Your task to perform on an android device: Open Youtube and go to "Your channel" Image 0: 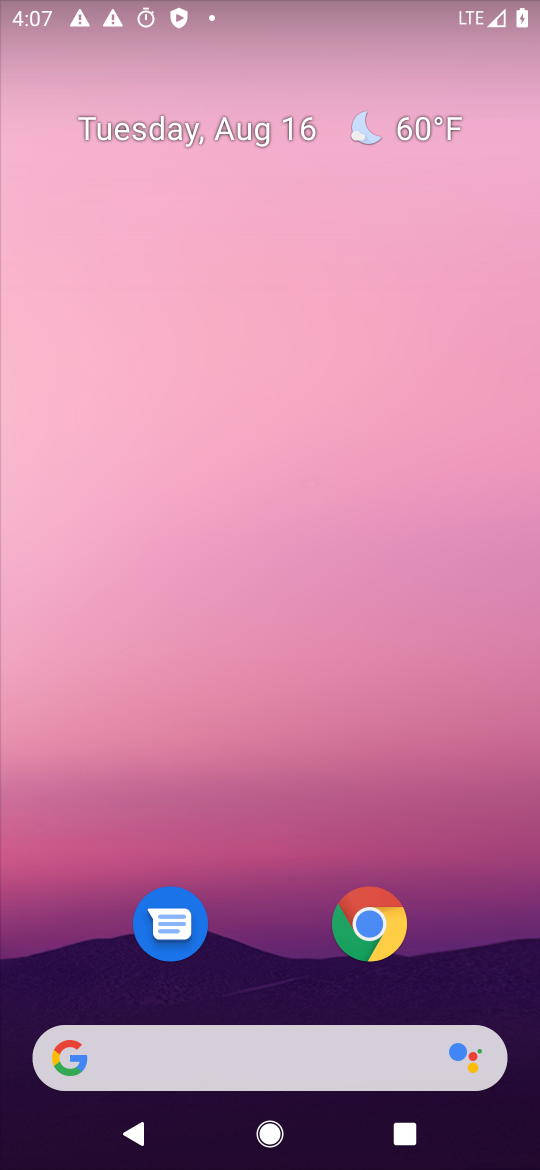
Step 0: drag from (262, 953) to (218, 81)
Your task to perform on an android device: Open Youtube and go to "Your channel" Image 1: 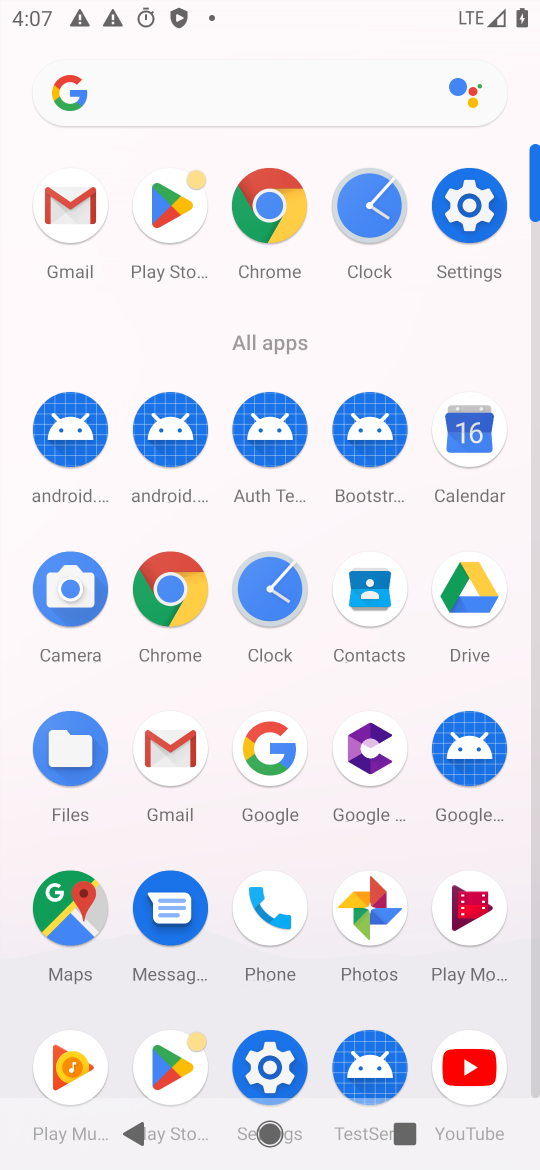
Step 1: click (484, 1064)
Your task to perform on an android device: Open Youtube and go to "Your channel" Image 2: 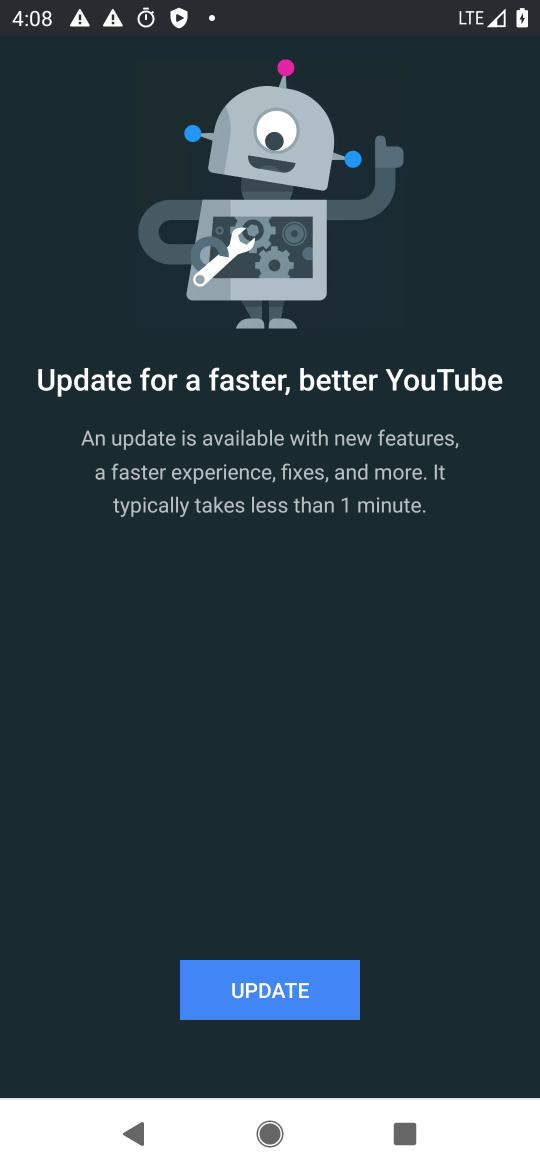
Step 2: click (326, 1008)
Your task to perform on an android device: Open Youtube and go to "Your channel" Image 3: 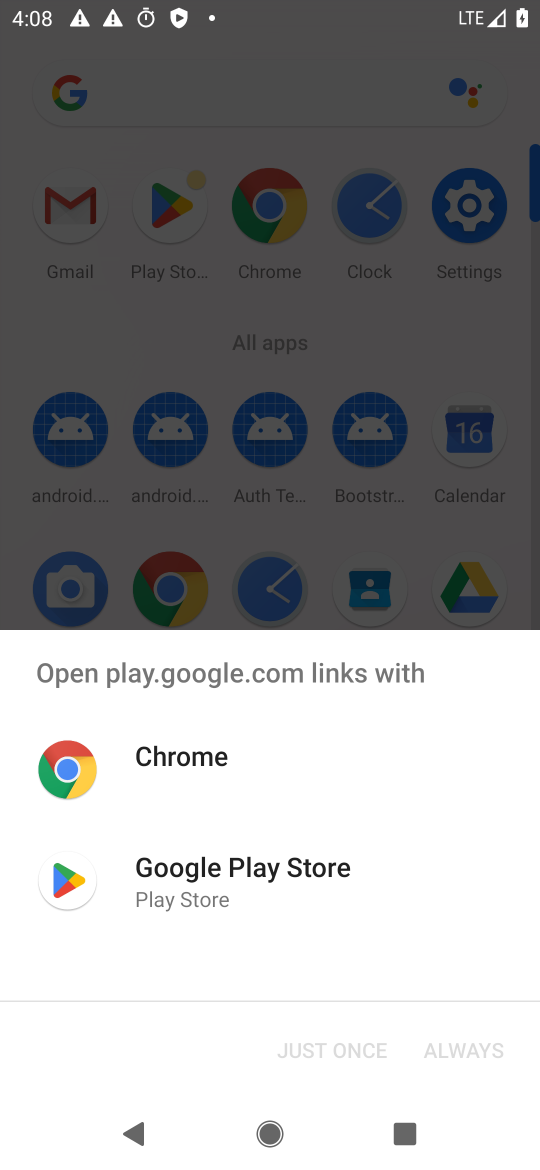
Step 3: click (258, 881)
Your task to perform on an android device: Open Youtube and go to "Your channel" Image 4: 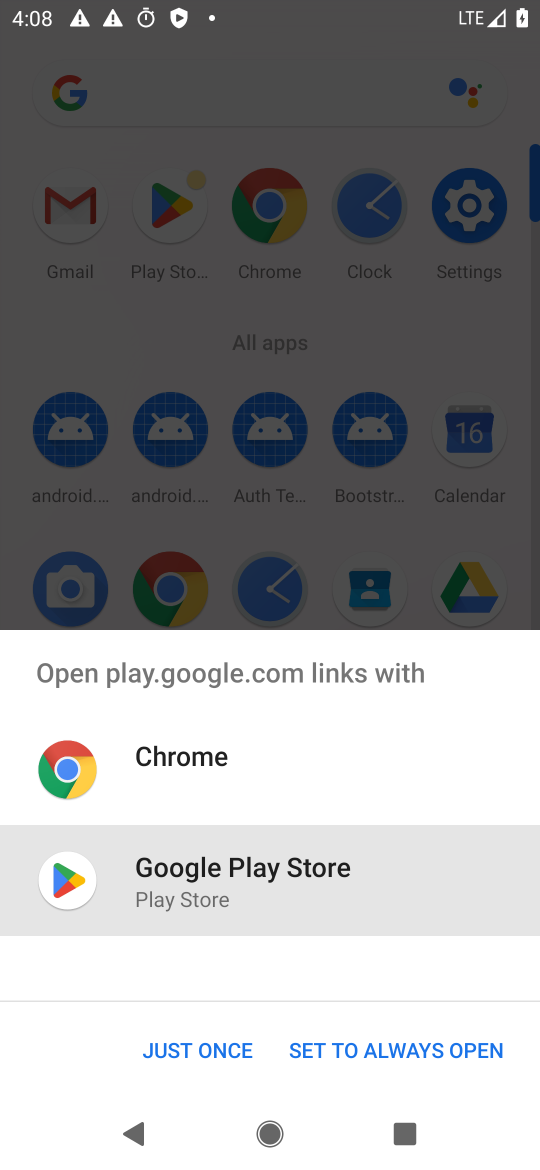
Step 4: click (198, 1047)
Your task to perform on an android device: Open Youtube and go to "Your channel" Image 5: 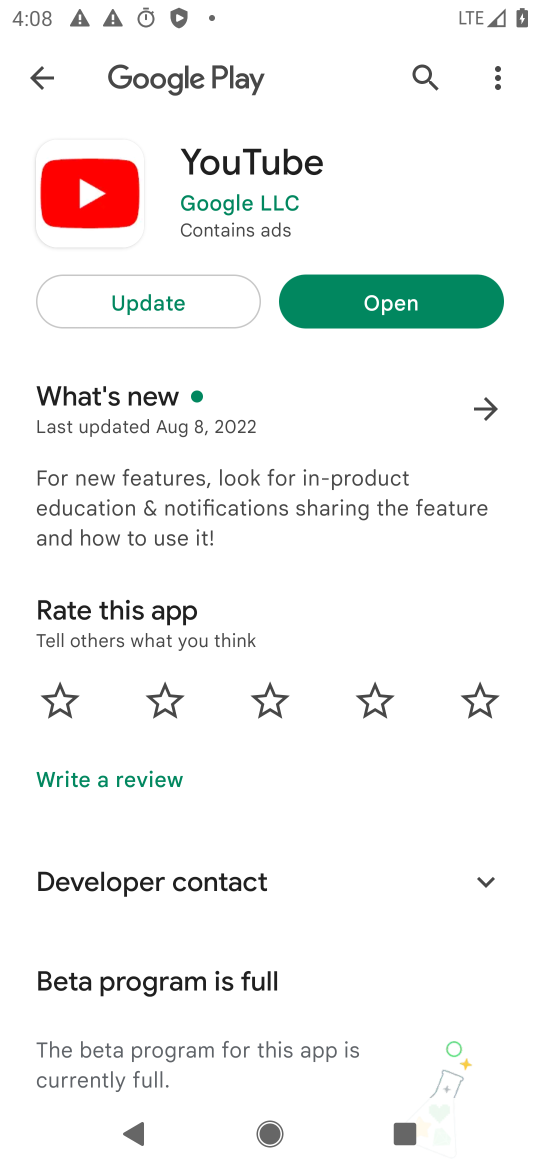
Step 5: click (126, 293)
Your task to perform on an android device: Open Youtube and go to "Your channel" Image 6: 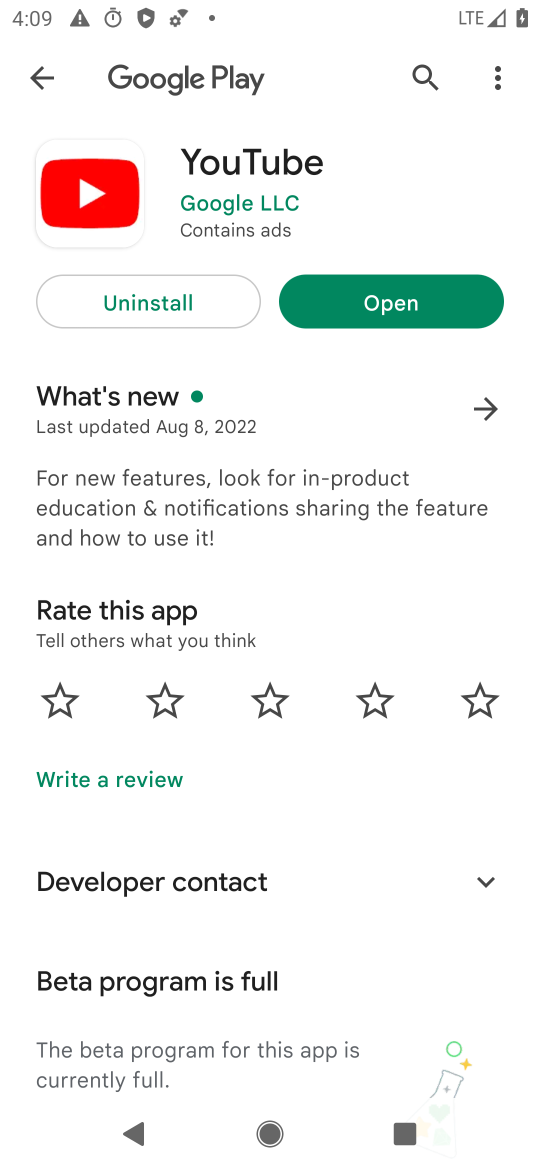
Step 6: click (434, 320)
Your task to perform on an android device: Open Youtube and go to "Your channel" Image 7: 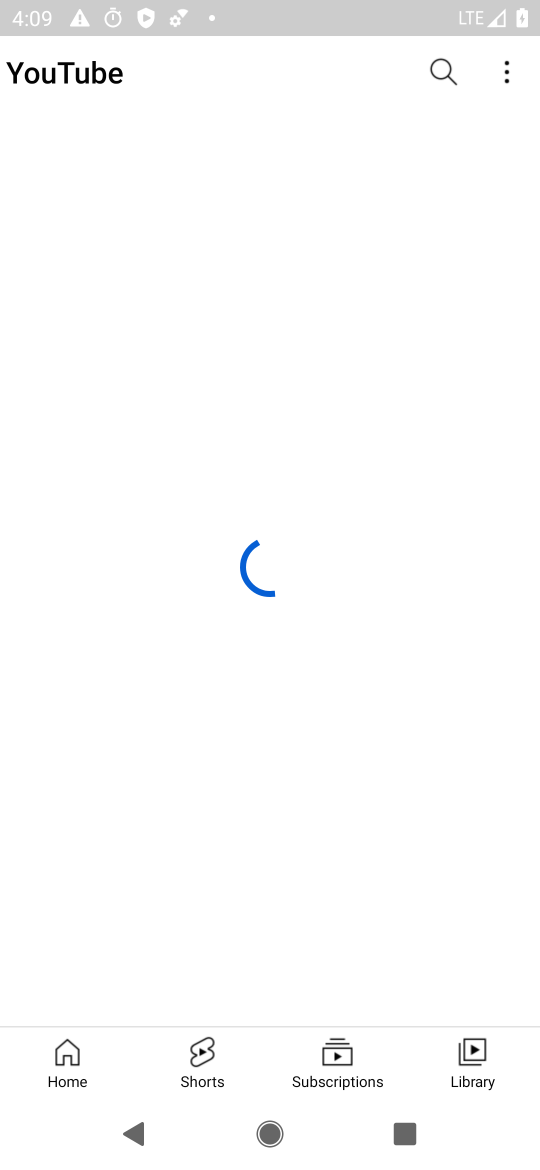
Step 7: click (441, 57)
Your task to perform on an android device: Open Youtube and go to "Your channel" Image 8: 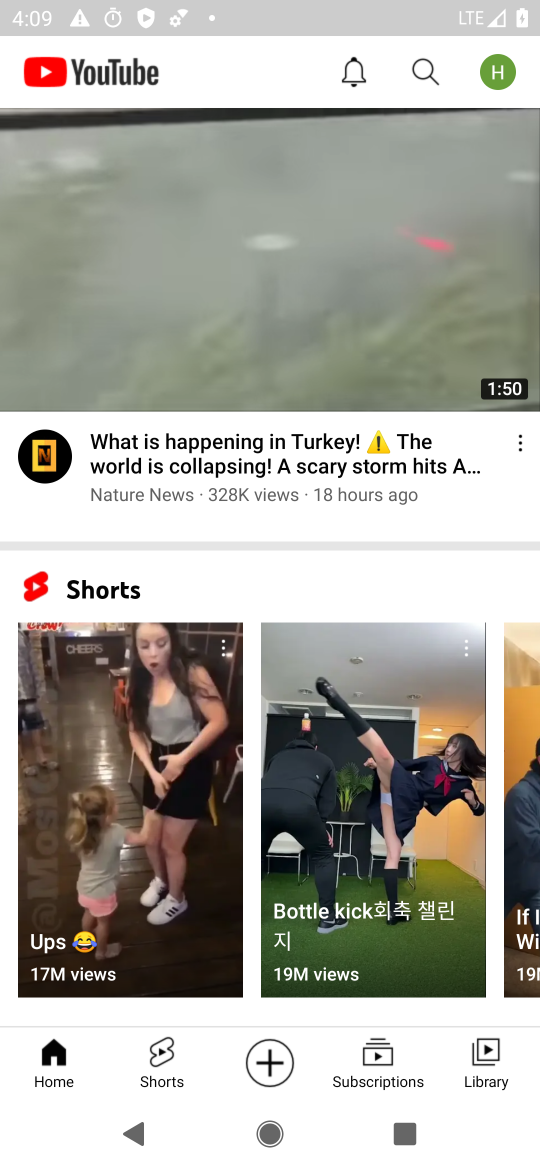
Step 8: click (430, 65)
Your task to perform on an android device: Open Youtube and go to "Your channel" Image 9: 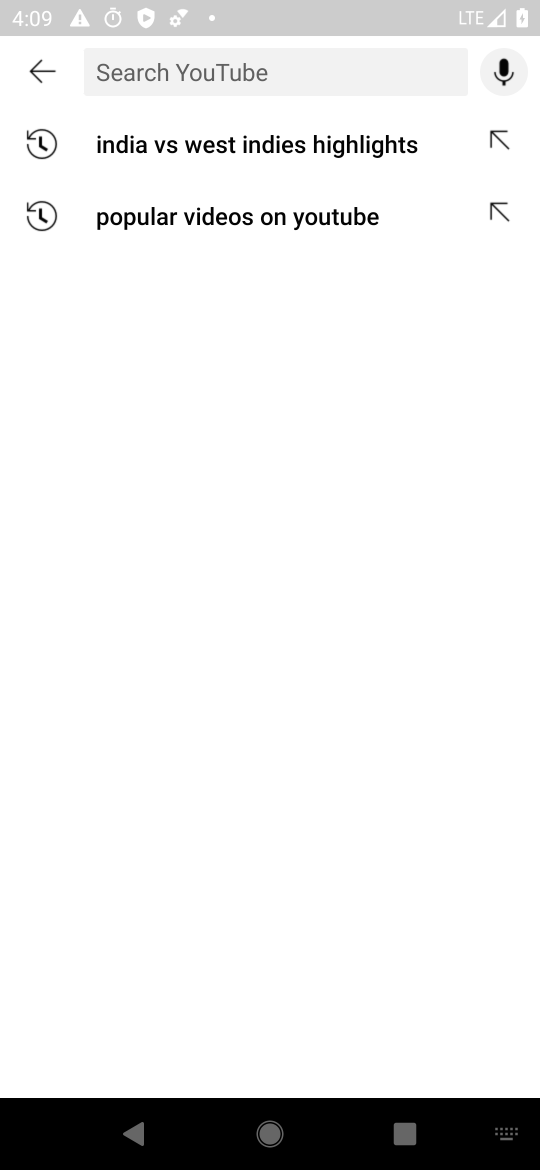
Step 9: type "your channel"
Your task to perform on an android device: Open Youtube and go to "Your channel" Image 10: 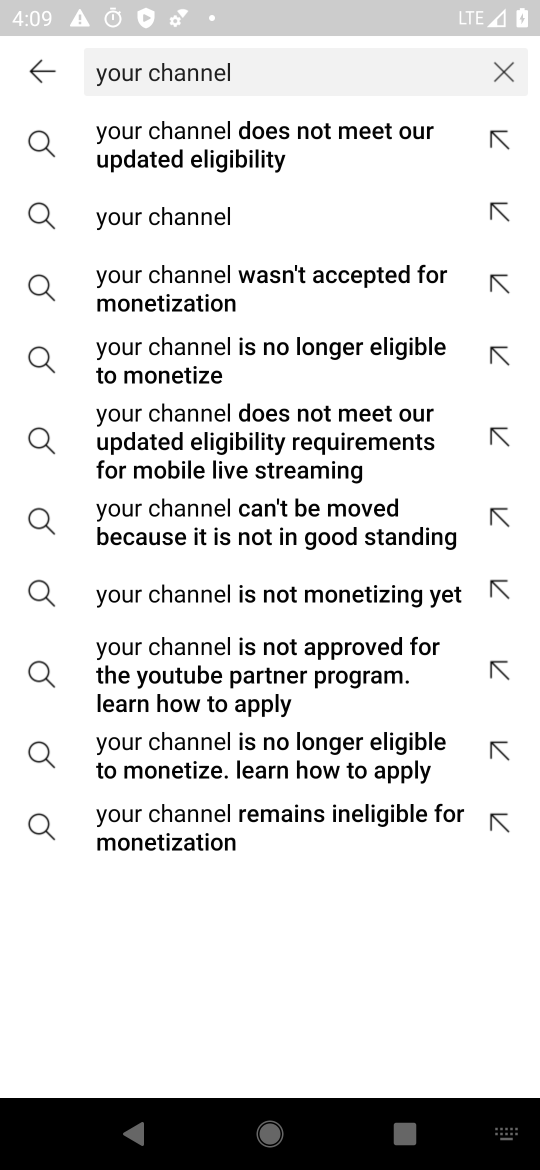
Step 10: click (248, 231)
Your task to perform on an android device: Open Youtube and go to "Your channel" Image 11: 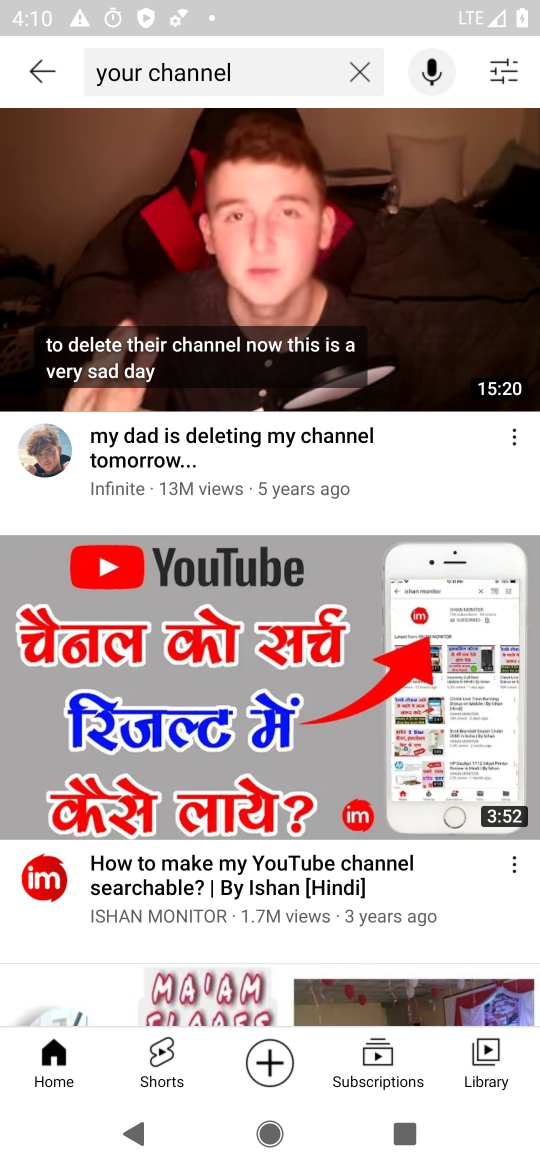
Step 11: task complete